Your task to perform on an android device: Search for pizza restaurants on Maps Image 0: 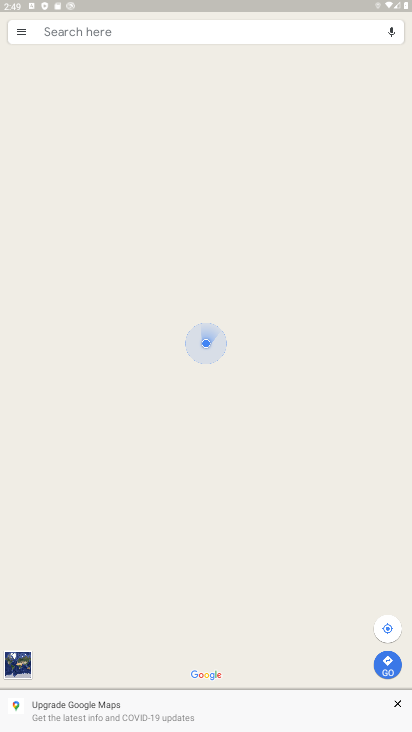
Step 0: press home button
Your task to perform on an android device: Search for pizza restaurants on Maps Image 1: 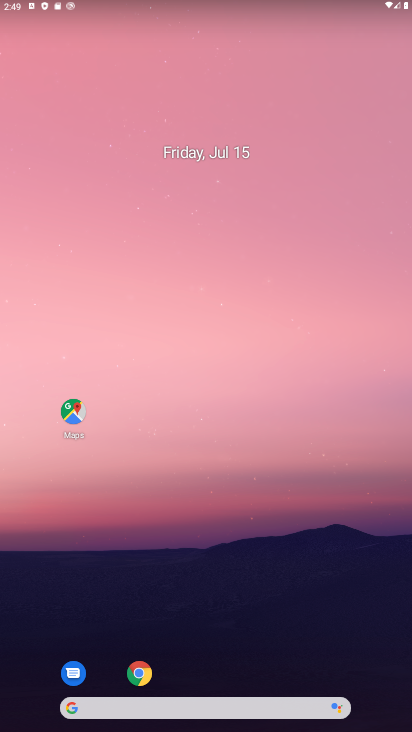
Step 1: click (72, 412)
Your task to perform on an android device: Search for pizza restaurants on Maps Image 2: 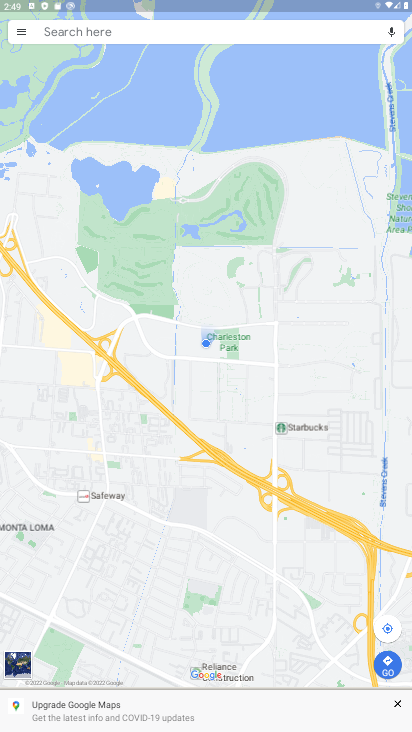
Step 2: click (70, 29)
Your task to perform on an android device: Search for pizza restaurants on Maps Image 3: 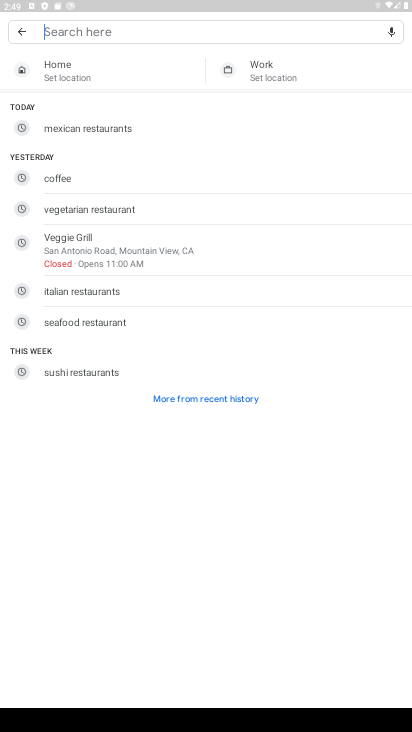
Step 3: type "pizza restaurants"
Your task to perform on an android device: Search for pizza restaurants on Maps Image 4: 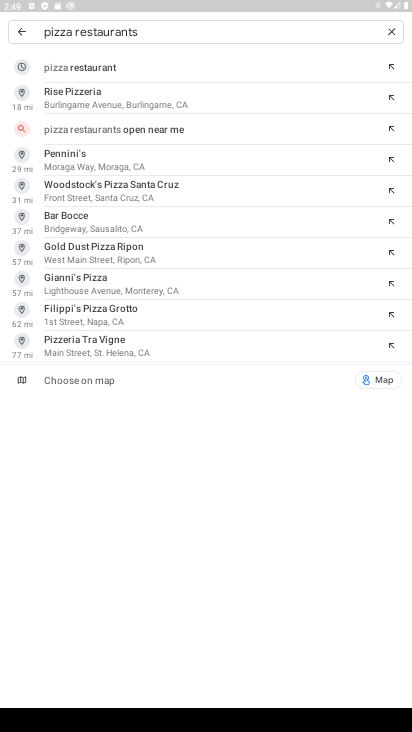
Step 4: click (87, 71)
Your task to perform on an android device: Search for pizza restaurants on Maps Image 5: 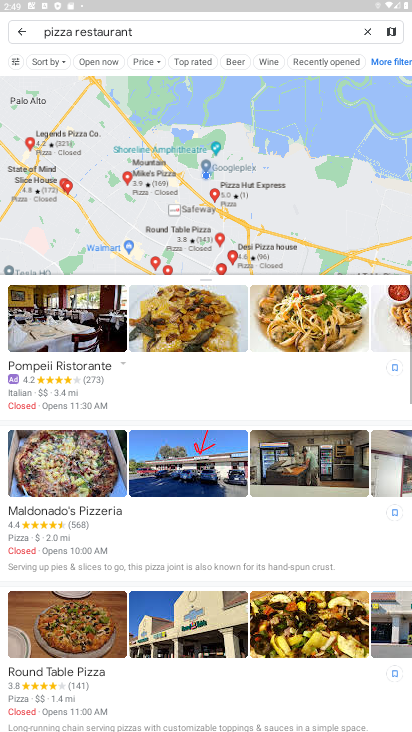
Step 5: task complete